Your task to perform on an android device: toggle wifi Image 0: 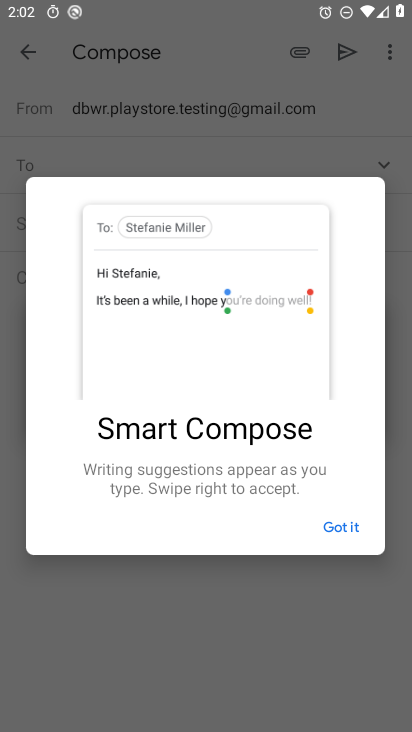
Step 0: press home button
Your task to perform on an android device: toggle wifi Image 1: 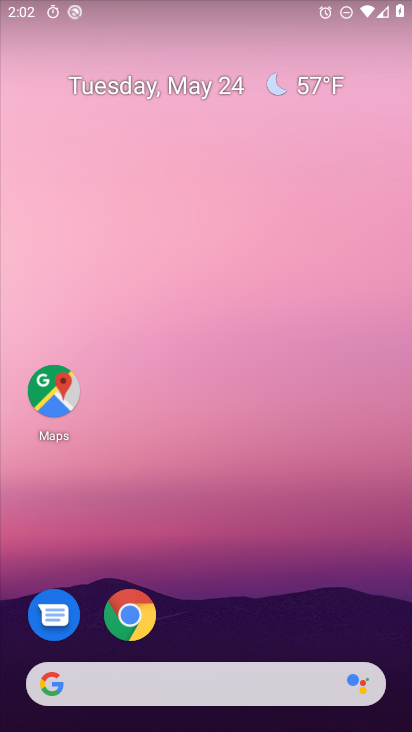
Step 1: drag from (118, 662) to (266, 117)
Your task to perform on an android device: toggle wifi Image 2: 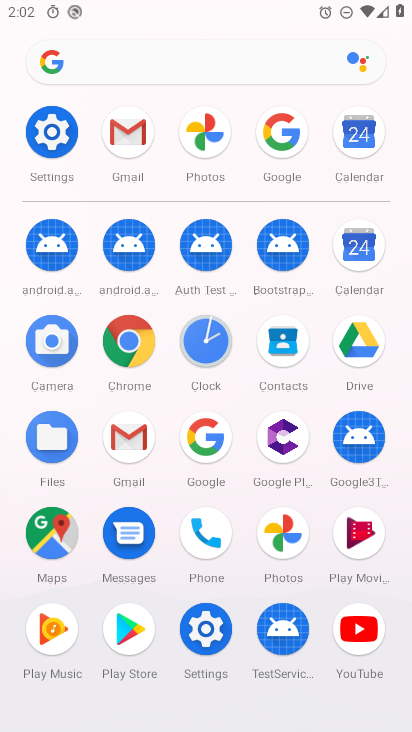
Step 2: click (47, 132)
Your task to perform on an android device: toggle wifi Image 3: 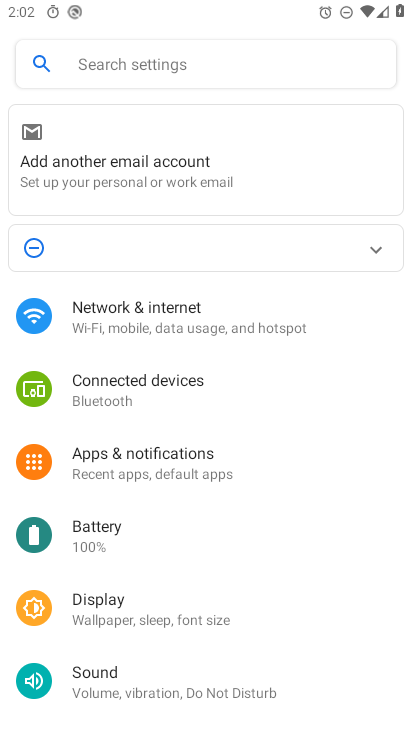
Step 3: click (103, 332)
Your task to perform on an android device: toggle wifi Image 4: 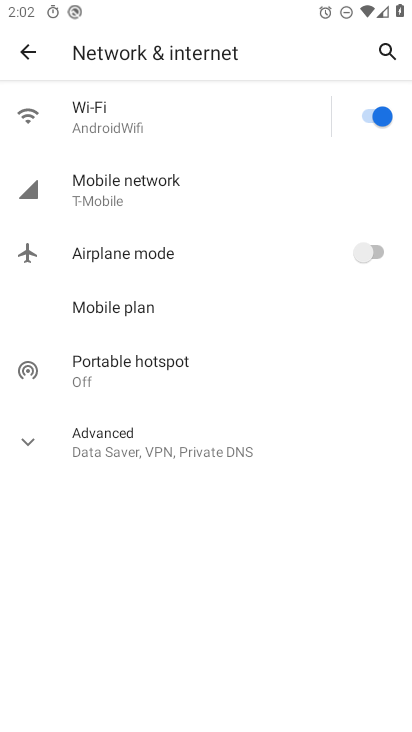
Step 4: click (375, 113)
Your task to perform on an android device: toggle wifi Image 5: 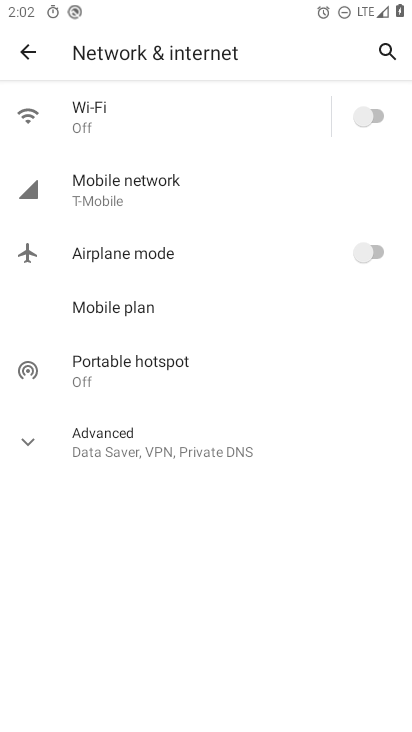
Step 5: task complete